Your task to perform on an android device: turn smart compose on in the gmail app Image 0: 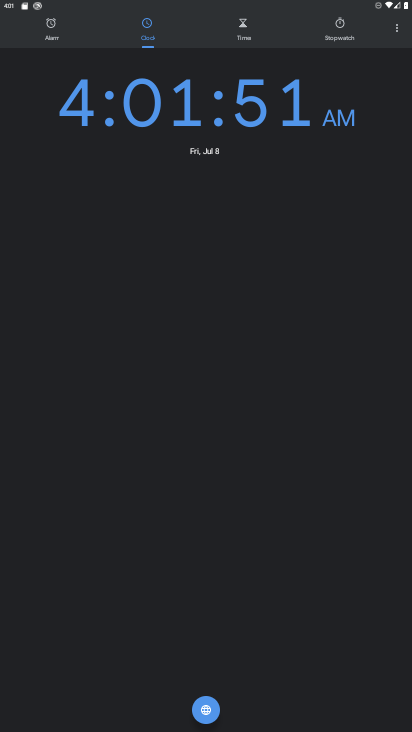
Step 0: press home button
Your task to perform on an android device: turn smart compose on in the gmail app Image 1: 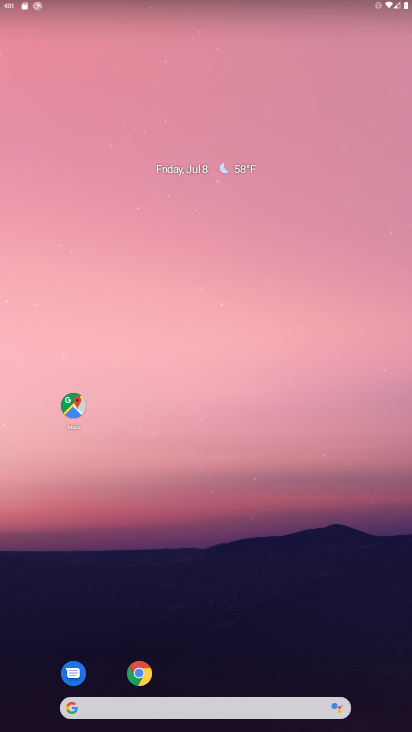
Step 1: drag from (195, 698) to (209, 388)
Your task to perform on an android device: turn smart compose on in the gmail app Image 2: 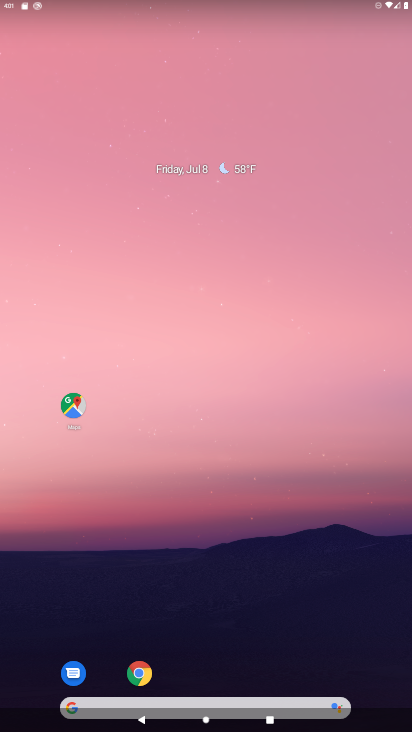
Step 2: drag from (252, 683) to (260, 269)
Your task to perform on an android device: turn smart compose on in the gmail app Image 3: 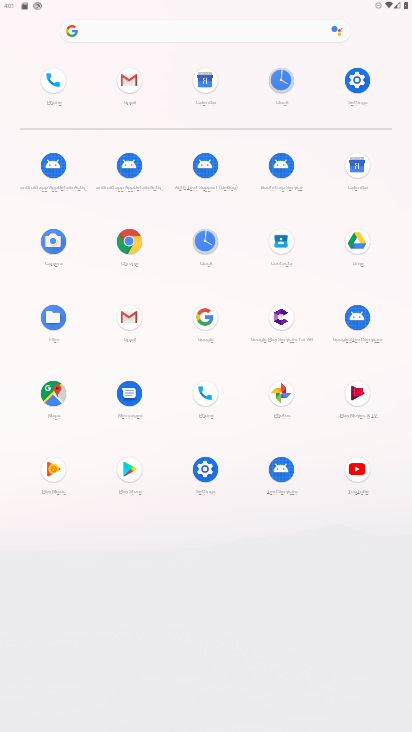
Step 3: click (123, 82)
Your task to perform on an android device: turn smart compose on in the gmail app Image 4: 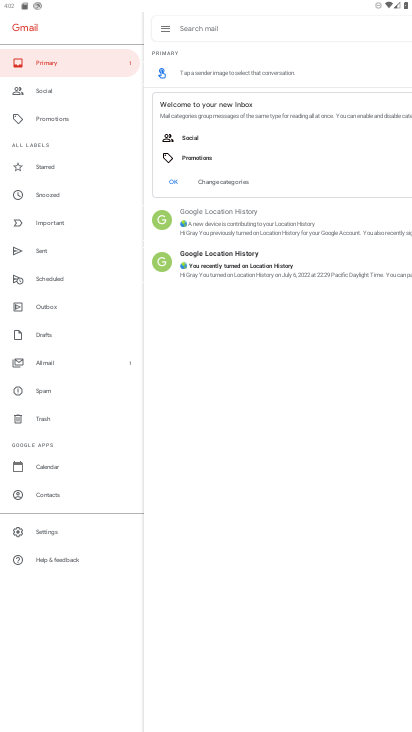
Step 4: click (38, 530)
Your task to perform on an android device: turn smart compose on in the gmail app Image 5: 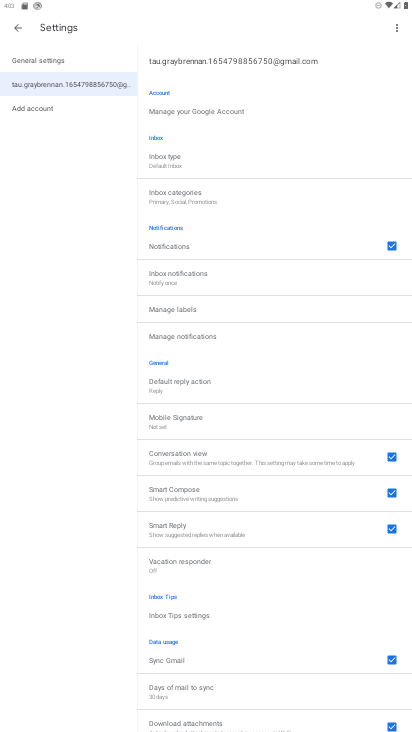
Step 5: task complete